Your task to perform on an android device: refresh tabs in the chrome app Image 0: 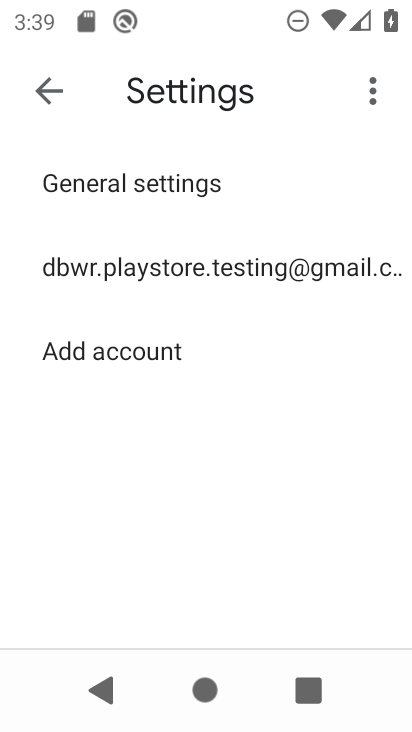
Step 0: press home button
Your task to perform on an android device: refresh tabs in the chrome app Image 1: 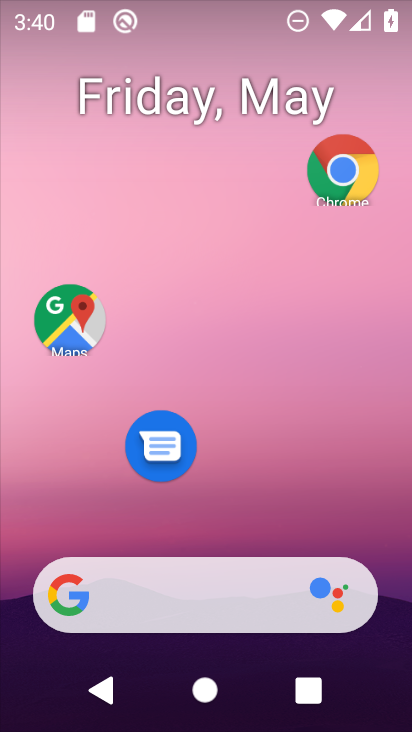
Step 1: drag from (254, 536) to (215, 67)
Your task to perform on an android device: refresh tabs in the chrome app Image 2: 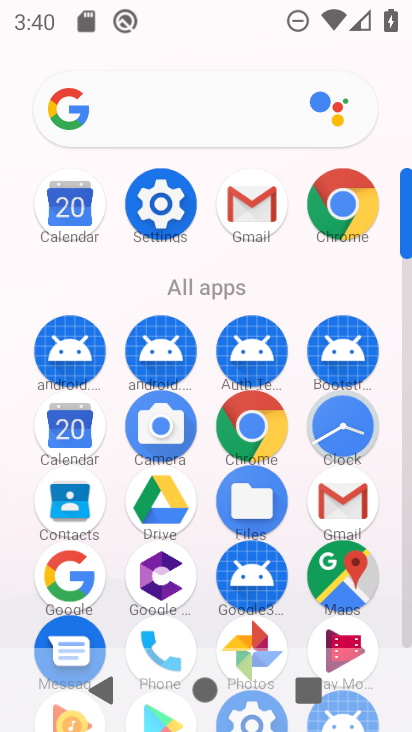
Step 2: click (238, 416)
Your task to perform on an android device: refresh tabs in the chrome app Image 3: 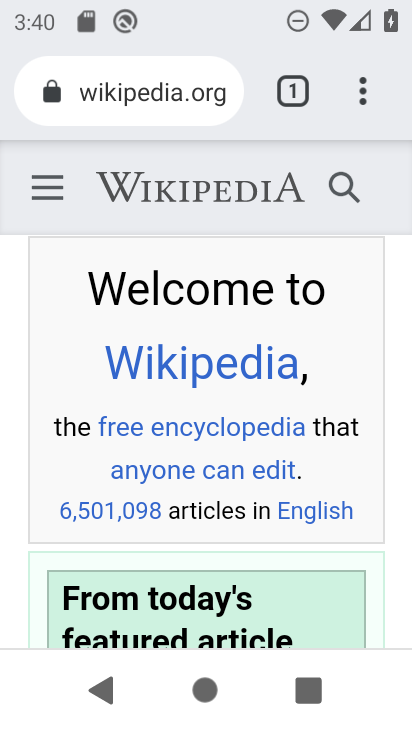
Step 3: task complete